Your task to perform on an android device: change the clock display to digital Image 0: 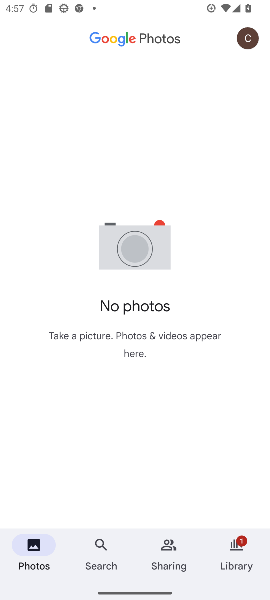
Step 0: press back button
Your task to perform on an android device: change the clock display to digital Image 1: 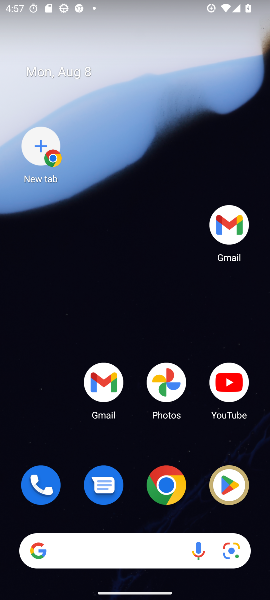
Step 1: drag from (86, 518) to (91, 168)
Your task to perform on an android device: change the clock display to digital Image 2: 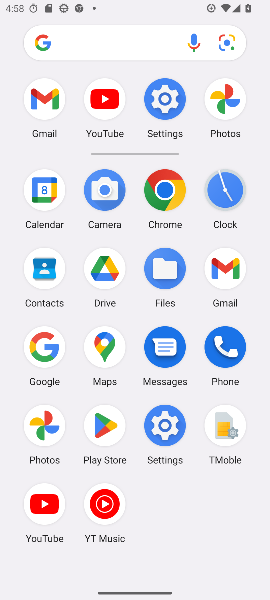
Step 2: click (213, 194)
Your task to perform on an android device: change the clock display to digital Image 3: 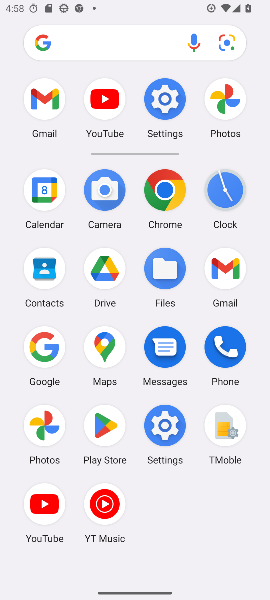
Step 3: click (213, 194)
Your task to perform on an android device: change the clock display to digital Image 4: 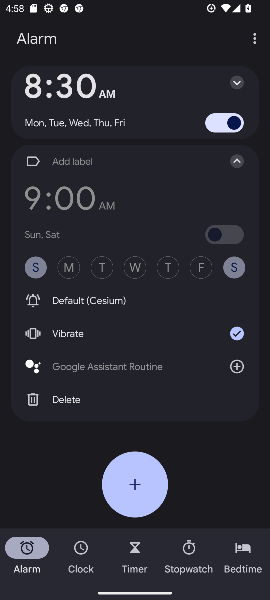
Step 4: press back button
Your task to perform on an android device: change the clock display to digital Image 5: 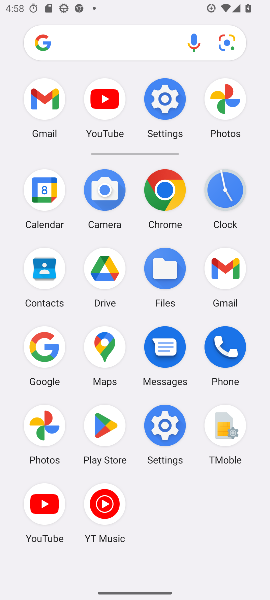
Step 5: click (224, 194)
Your task to perform on an android device: change the clock display to digital Image 6: 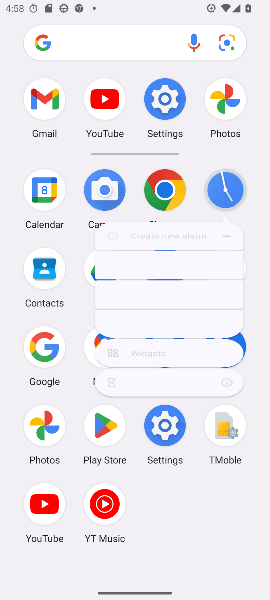
Step 6: click (222, 196)
Your task to perform on an android device: change the clock display to digital Image 7: 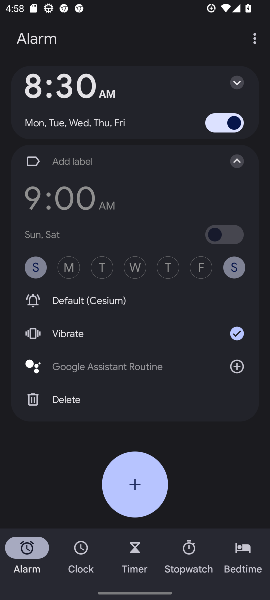
Step 7: click (224, 196)
Your task to perform on an android device: change the clock display to digital Image 8: 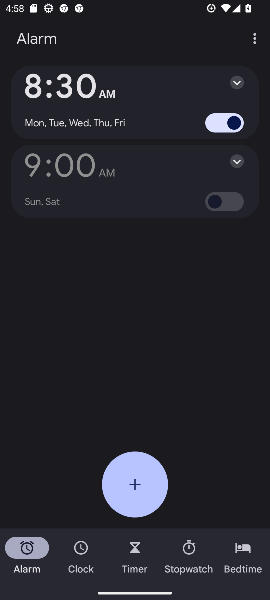
Step 8: press back button
Your task to perform on an android device: change the clock display to digital Image 9: 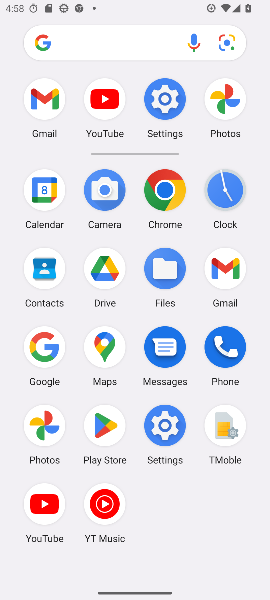
Step 9: click (217, 189)
Your task to perform on an android device: change the clock display to digital Image 10: 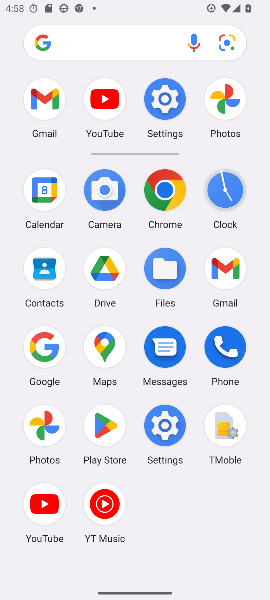
Step 10: click (217, 189)
Your task to perform on an android device: change the clock display to digital Image 11: 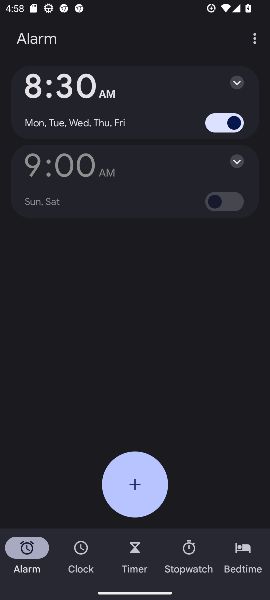
Step 11: click (256, 35)
Your task to perform on an android device: change the clock display to digital Image 12: 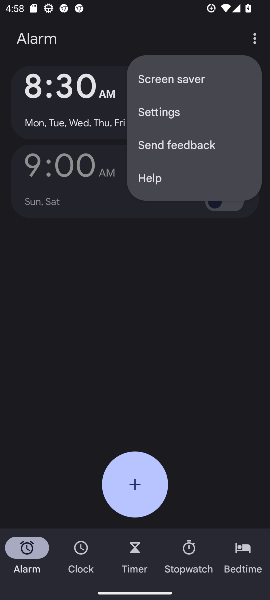
Step 12: click (160, 113)
Your task to perform on an android device: change the clock display to digital Image 13: 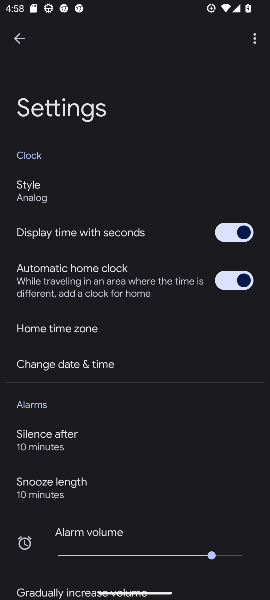
Step 13: click (40, 192)
Your task to perform on an android device: change the clock display to digital Image 14: 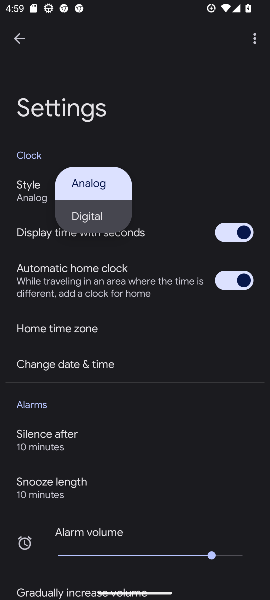
Step 14: click (91, 223)
Your task to perform on an android device: change the clock display to digital Image 15: 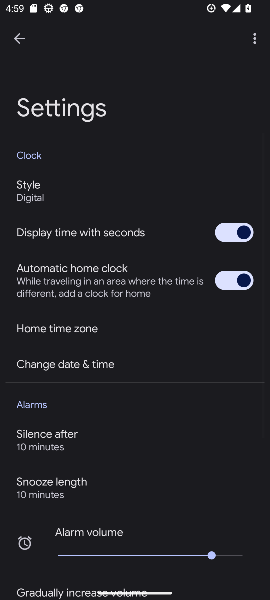
Step 15: task complete